Your task to perform on an android device: Open wifi settings Image 0: 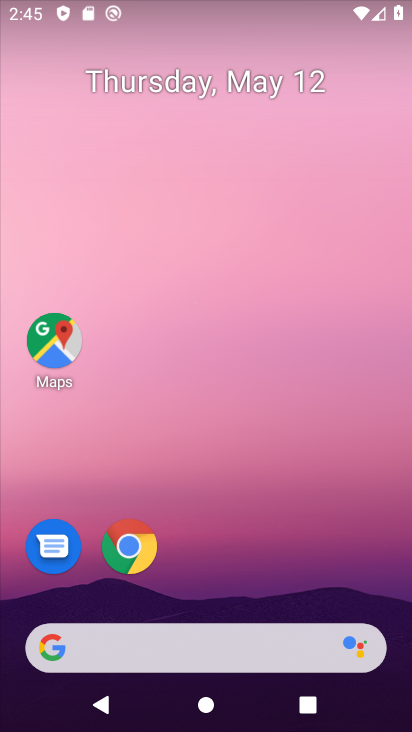
Step 0: drag from (296, 616) to (322, 215)
Your task to perform on an android device: Open wifi settings Image 1: 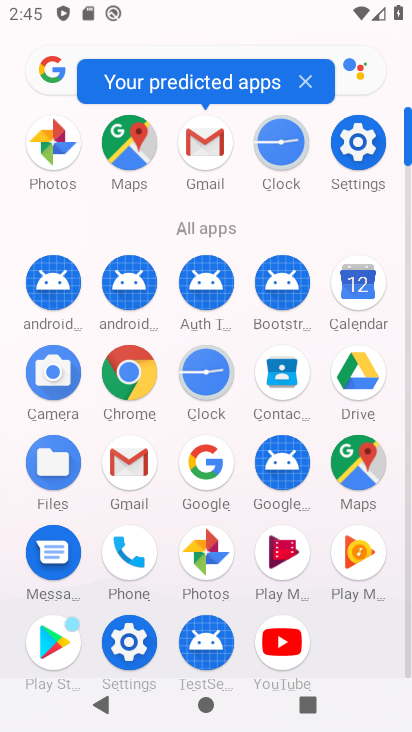
Step 1: click (350, 139)
Your task to perform on an android device: Open wifi settings Image 2: 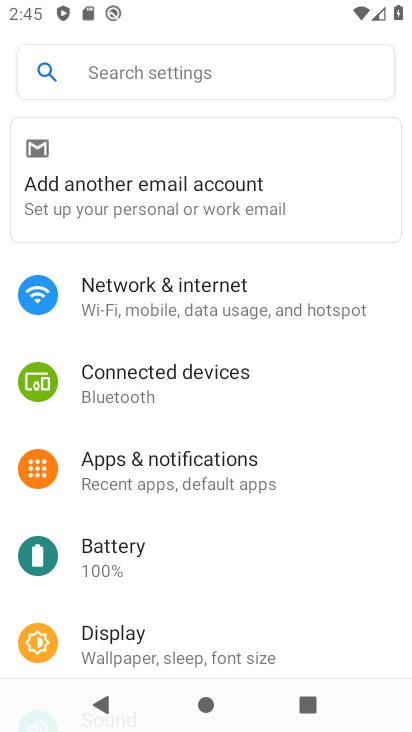
Step 2: click (145, 158)
Your task to perform on an android device: Open wifi settings Image 3: 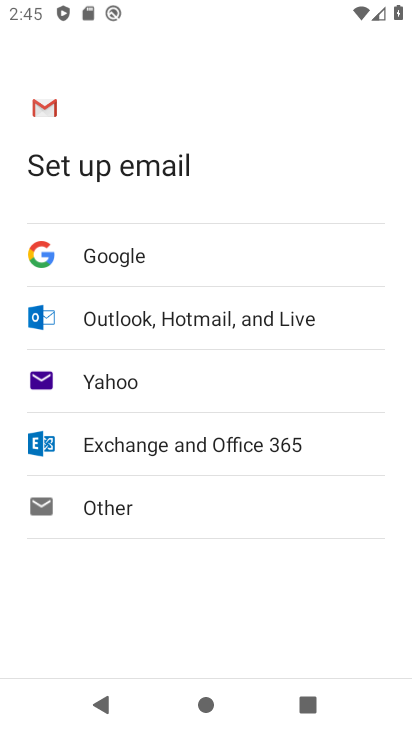
Step 3: press back button
Your task to perform on an android device: Open wifi settings Image 4: 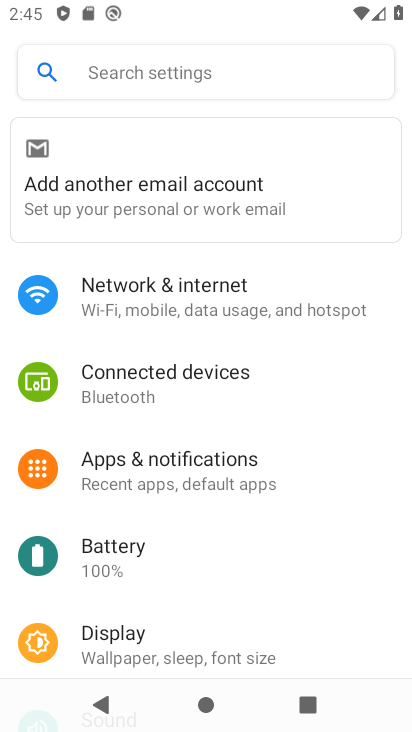
Step 4: click (140, 156)
Your task to perform on an android device: Open wifi settings Image 5: 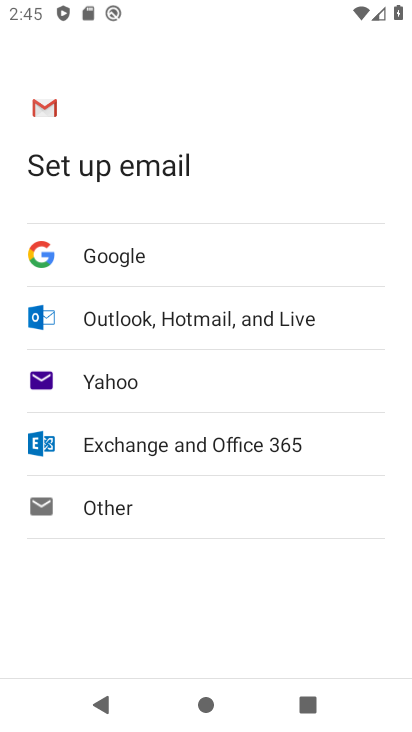
Step 5: press back button
Your task to perform on an android device: Open wifi settings Image 6: 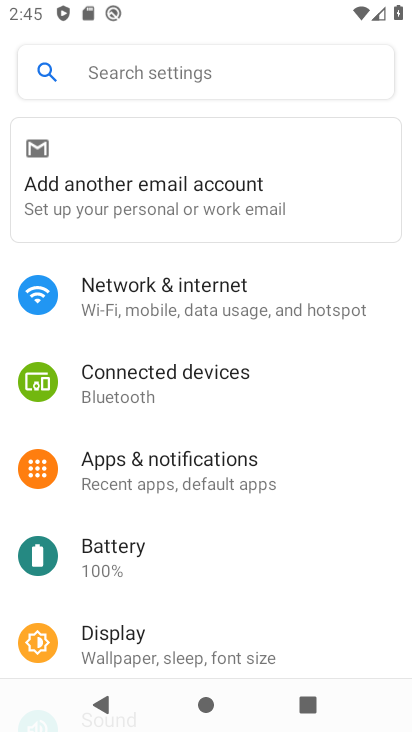
Step 6: click (121, 298)
Your task to perform on an android device: Open wifi settings Image 7: 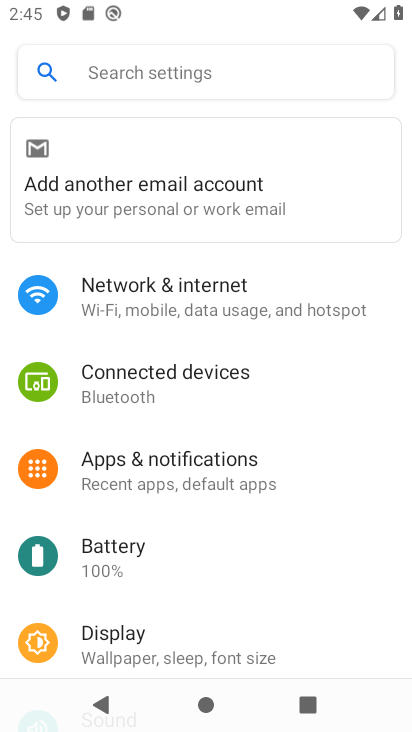
Step 7: click (129, 287)
Your task to perform on an android device: Open wifi settings Image 8: 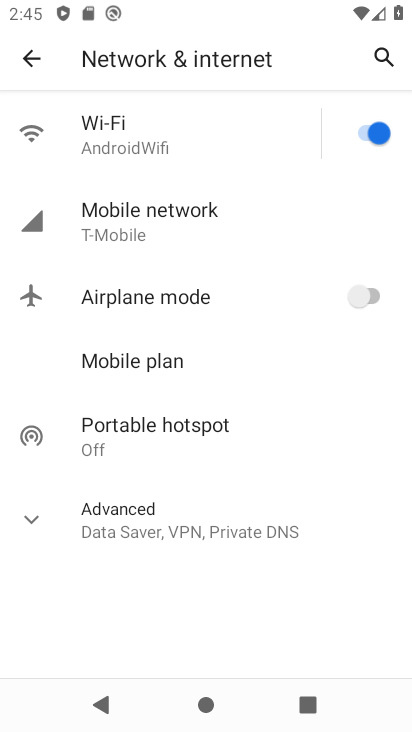
Step 8: click (133, 124)
Your task to perform on an android device: Open wifi settings Image 9: 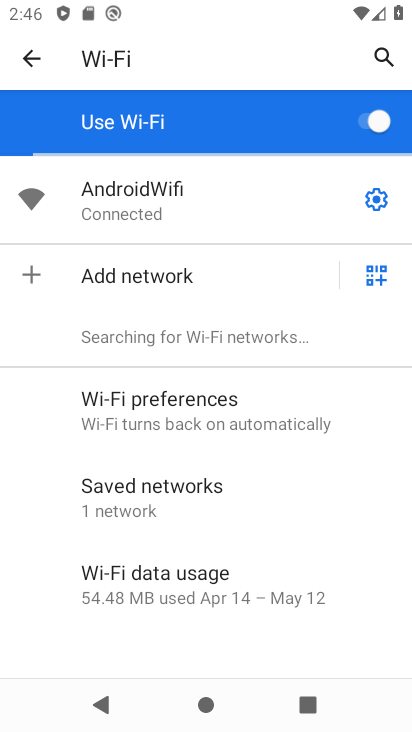
Step 9: task complete